Your task to perform on an android device: Find coffee shops on Maps Image 0: 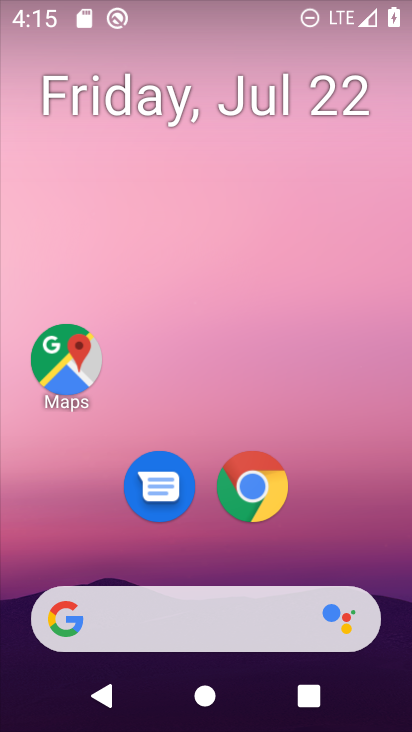
Step 0: click (75, 369)
Your task to perform on an android device: Find coffee shops on Maps Image 1: 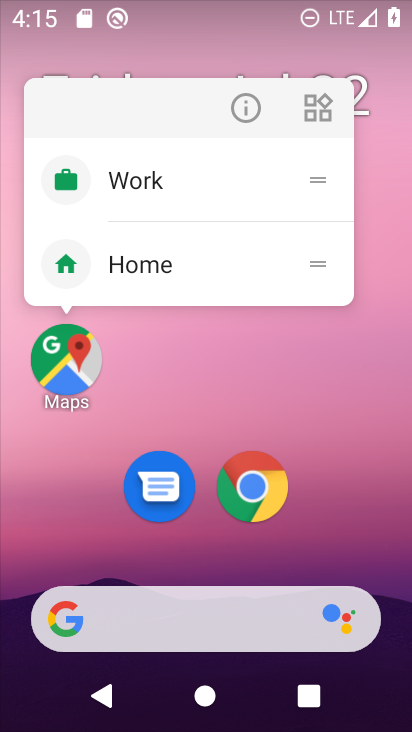
Step 1: click (71, 350)
Your task to perform on an android device: Find coffee shops on Maps Image 2: 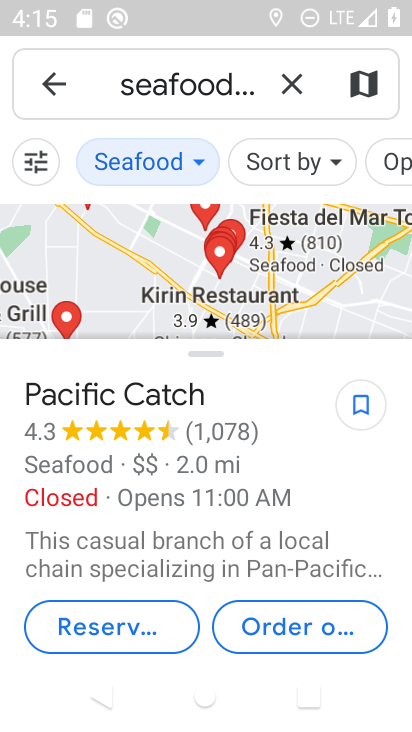
Step 2: click (290, 74)
Your task to perform on an android device: Find coffee shops on Maps Image 3: 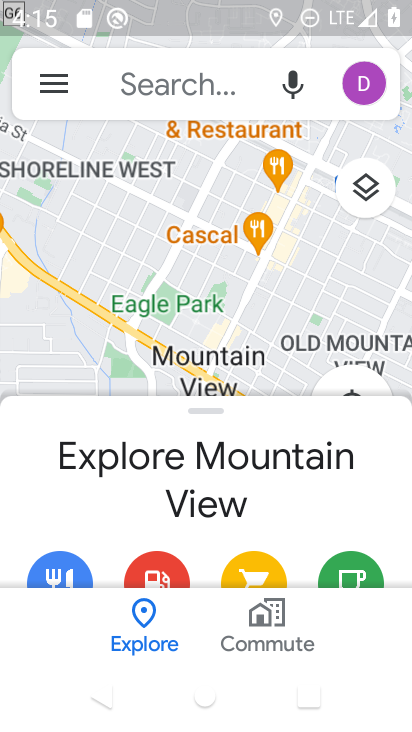
Step 3: click (174, 89)
Your task to perform on an android device: Find coffee shops on Maps Image 4: 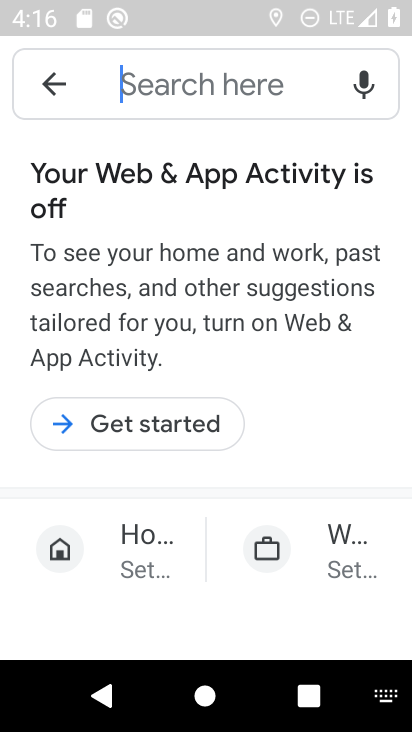
Step 4: type "coffee shops"
Your task to perform on an android device: Find coffee shops on Maps Image 5: 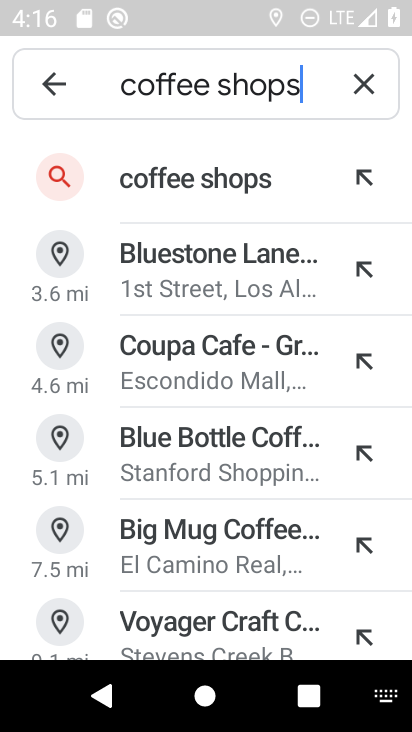
Step 5: click (211, 175)
Your task to perform on an android device: Find coffee shops on Maps Image 6: 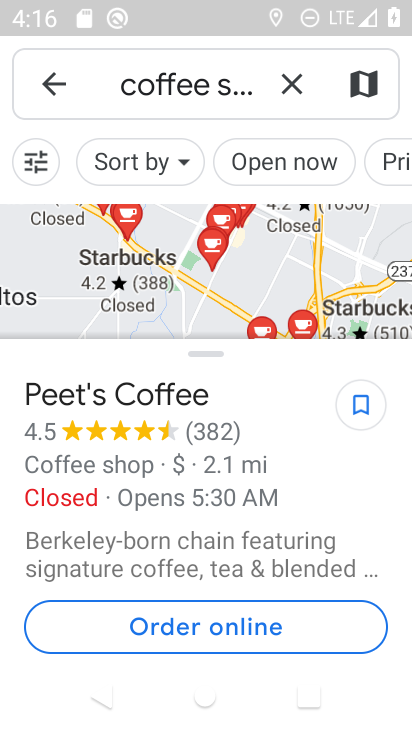
Step 6: task complete